Your task to perform on an android device: turn off location history Image 0: 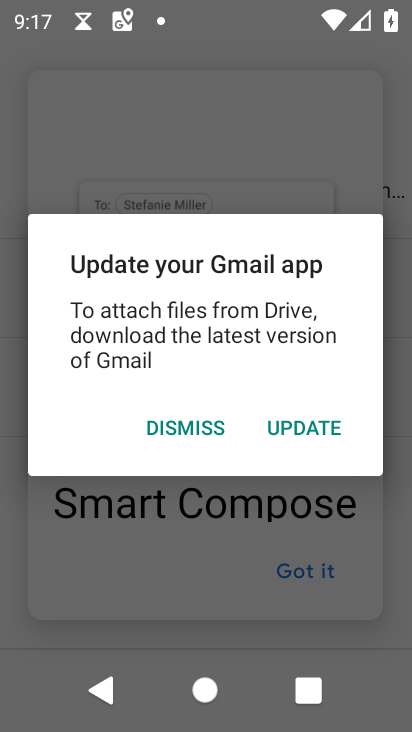
Step 0: press home button
Your task to perform on an android device: turn off location history Image 1: 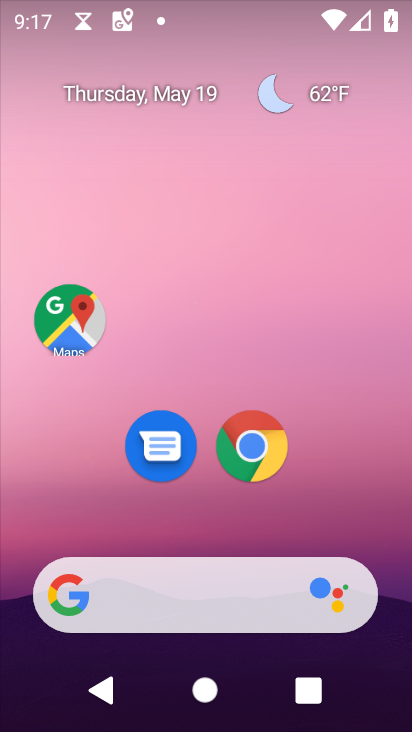
Step 1: drag from (204, 527) to (252, 37)
Your task to perform on an android device: turn off location history Image 2: 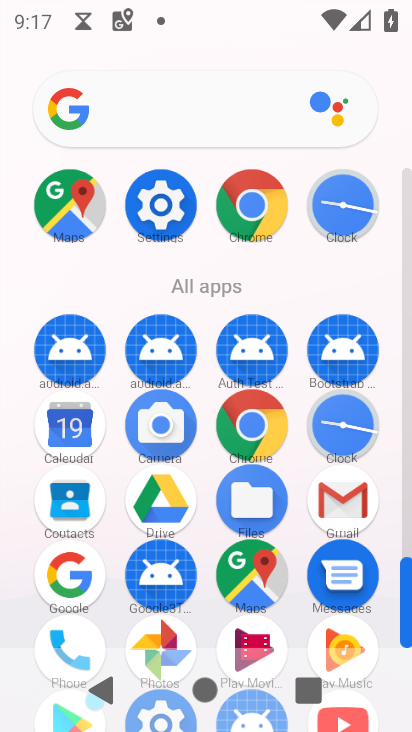
Step 2: click (136, 229)
Your task to perform on an android device: turn off location history Image 3: 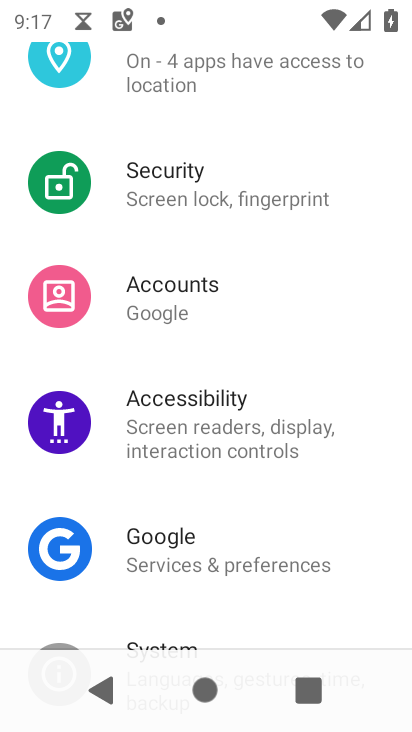
Step 3: click (212, 68)
Your task to perform on an android device: turn off location history Image 4: 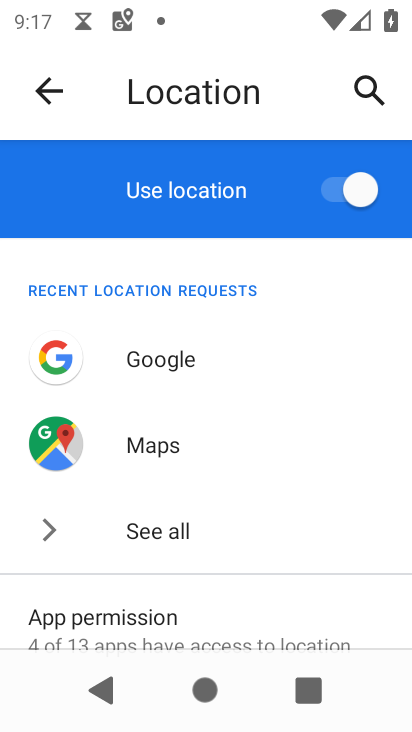
Step 4: drag from (176, 600) to (200, 189)
Your task to perform on an android device: turn off location history Image 5: 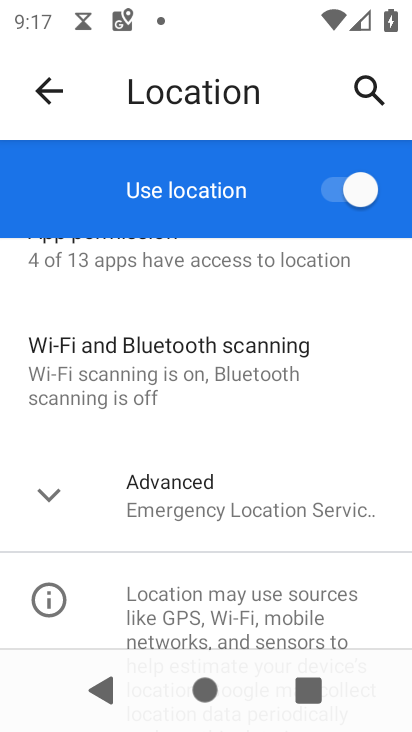
Step 5: click (166, 527)
Your task to perform on an android device: turn off location history Image 6: 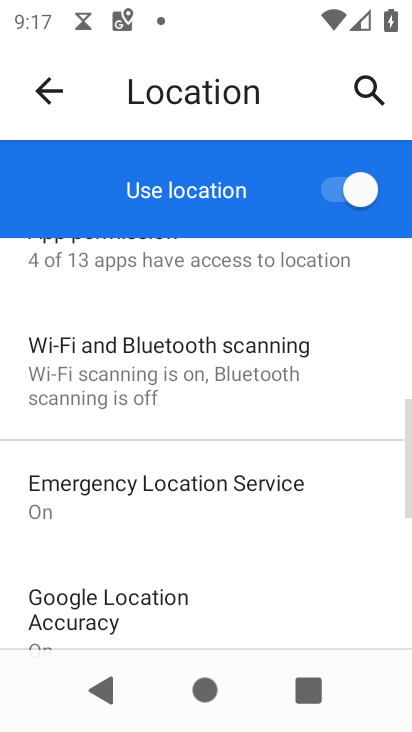
Step 6: drag from (190, 589) to (250, 348)
Your task to perform on an android device: turn off location history Image 7: 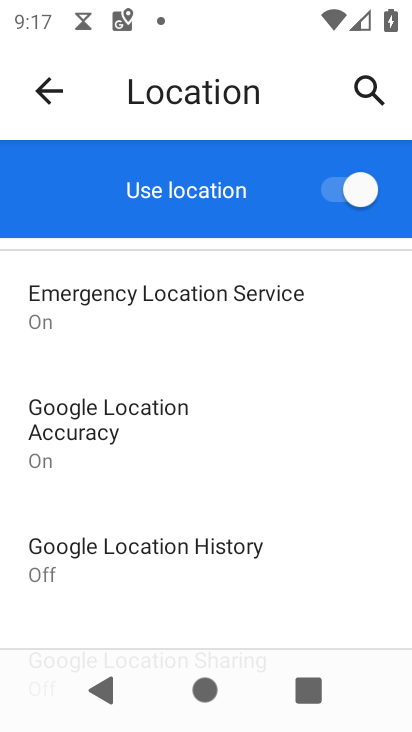
Step 7: click (109, 557)
Your task to perform on an android device: turn off location history Image 8: 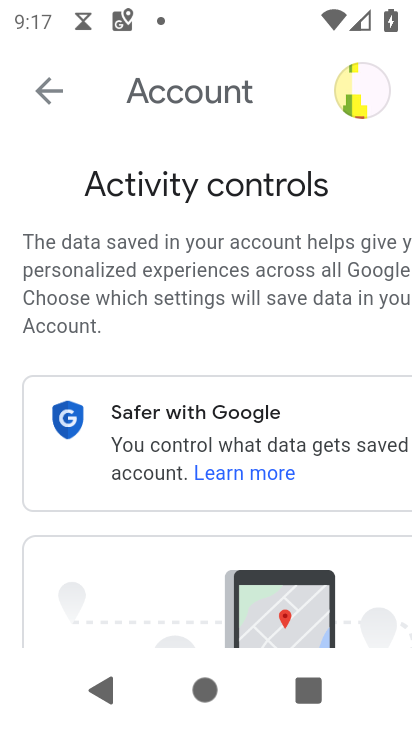
Step 8: drag from (97, 574) to (127, 184)
Your task to perform on an android device: turn off location history Image 9: 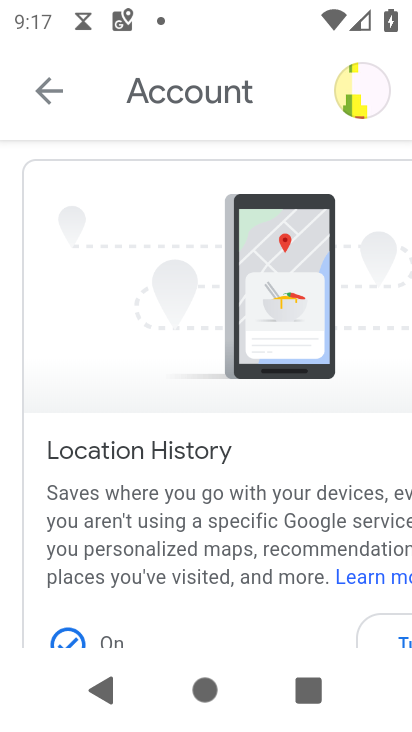
Step 9: drag from (165, 567) to (155, 373)
Your task to perform on an android device: turn off location history Image 10: 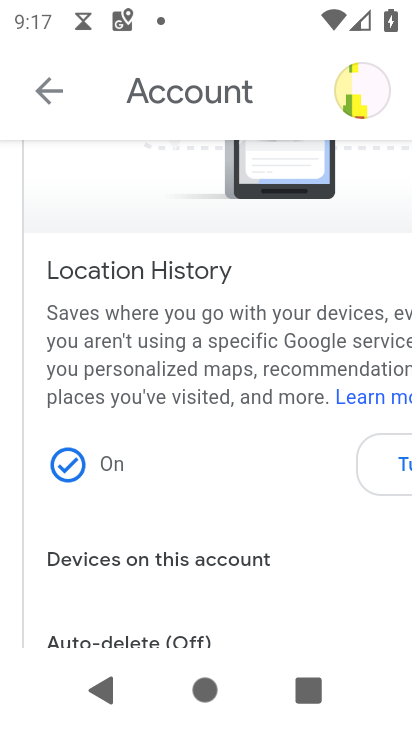
Step 10: click (378, 461)
Your task to perform on an android device: turn off location history Image 11: 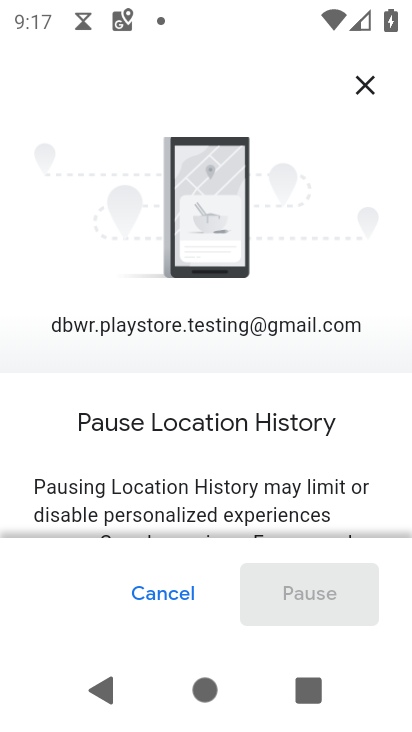
Step 11: drag from (266, 509) to (273, 394)
Your task to perform on an android device: turn off location history Image 12: 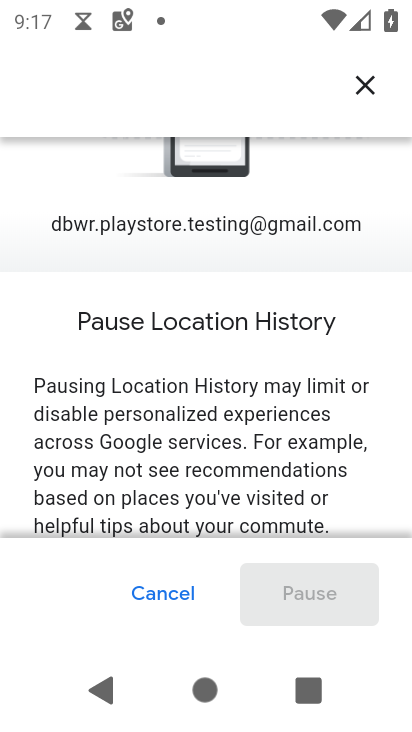
Step 12: drag from (273, 526) to (269, 353)
Your task to perform on an android device: turn off location history Image 13: 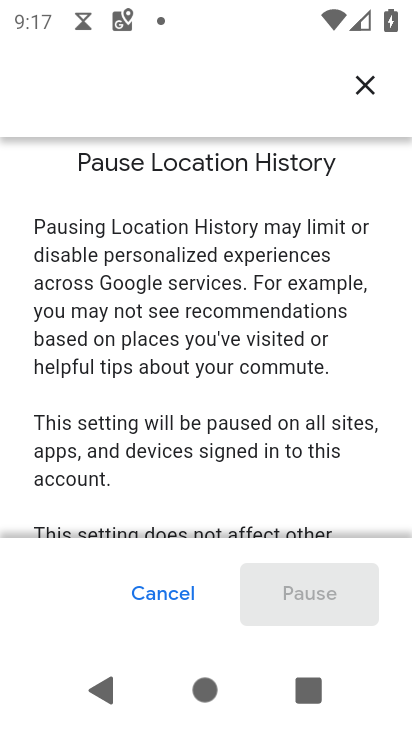
Step 13: drag from (285, 505) to (299, 358)
Your task to perform on an android device: turn off location history Image 14: 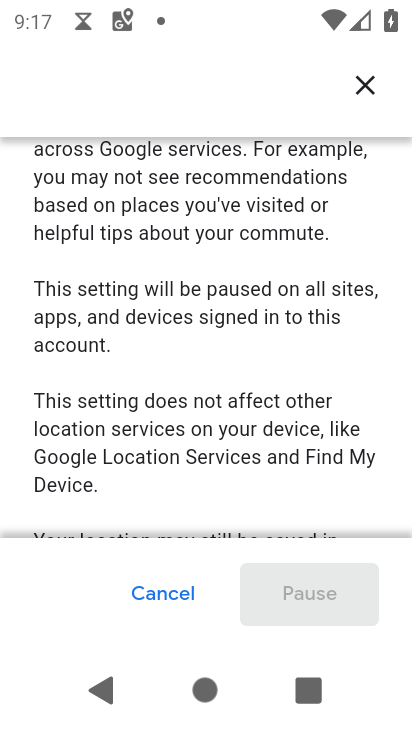
Step 14: drag from (319, 495) to (301, 365)
Your task to perform on an android device: turn off location history Image 15: 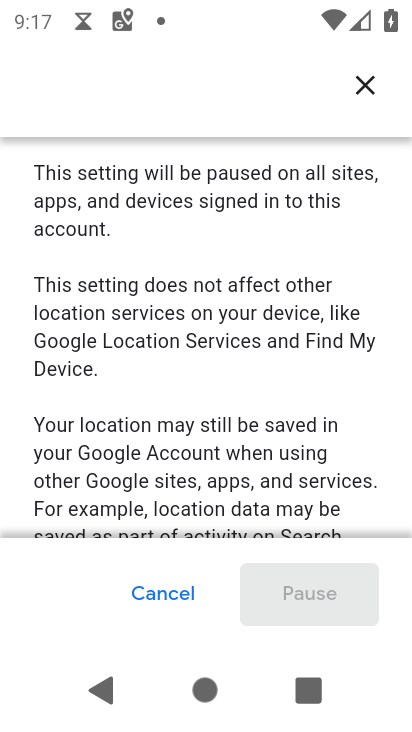
Step 15: drag from (231, 488) to (256, 285)
Your task to perform on an android device: turn off location history Image 16: 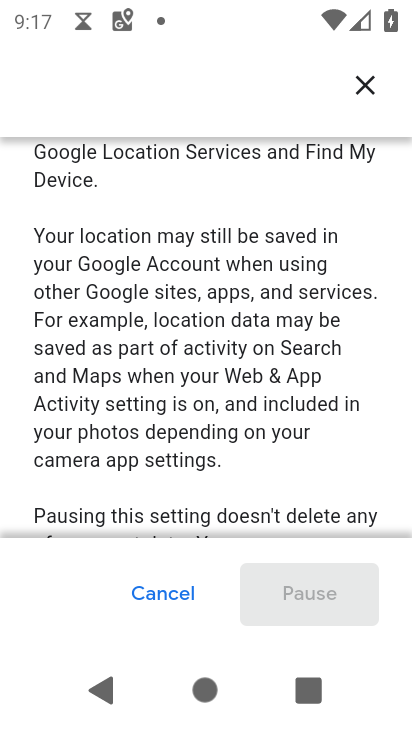
Step 16: drag from (223, 447) to (241, 287)
Your task to perform on an android device: turn off location history Image 17: 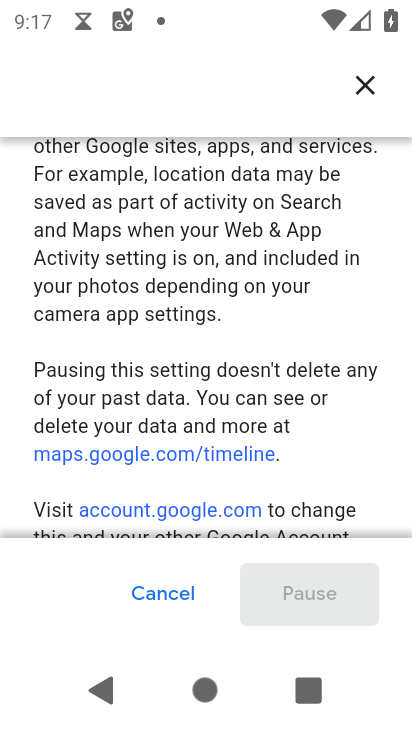
Step 17: drag from (214, 467) to (227, 284)
Your task to perform on an android device: turn off location history Image 18: 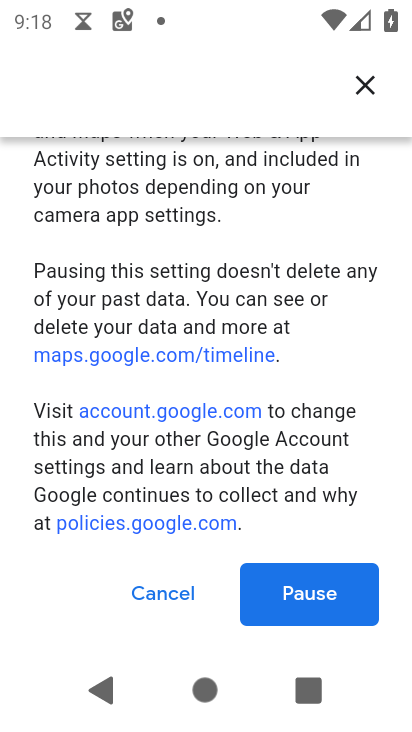
Step 18: click (290, 588)
Your task to perform on an android device: turn off location history Image 19: 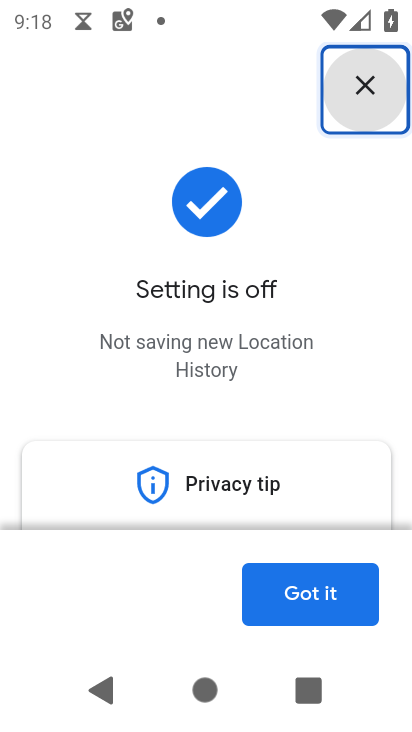
Step 19: task complete